Your task to perform on an android device: toggle data saver in the chrome app Image 0: 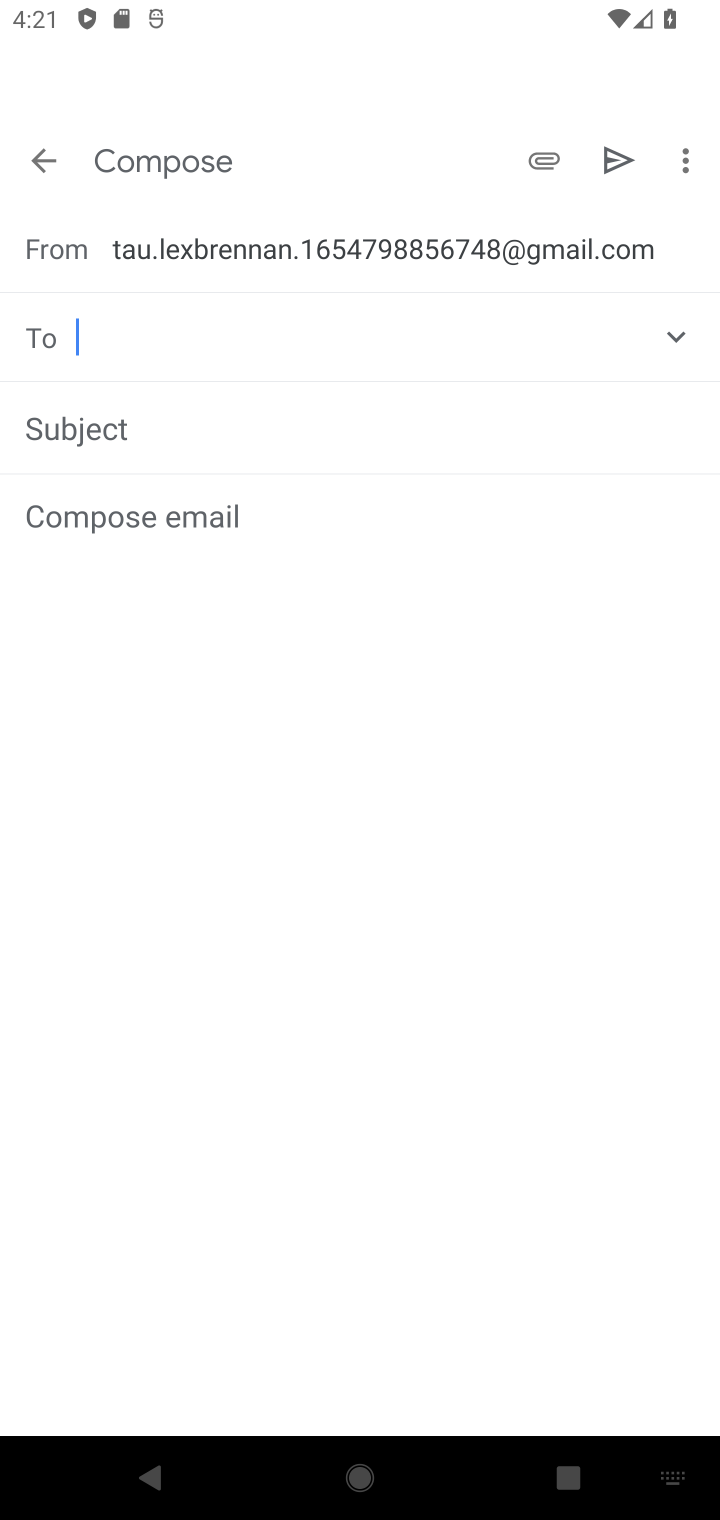
Step 0: press back button
Your task to perform on an android device: toggle data saver in the chrome app Image 1: 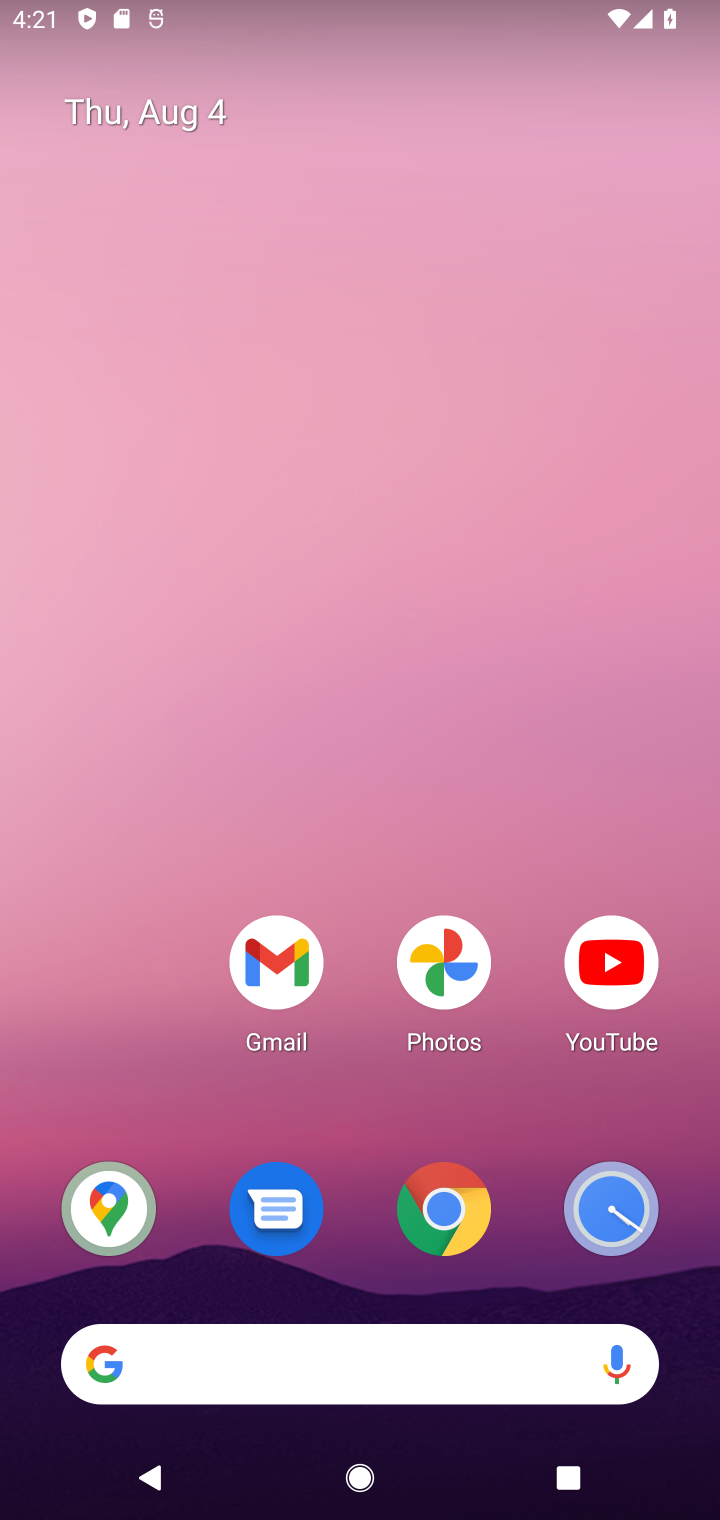
Step 1: drag from (353, 1199) to (421, 11)
Your task to perform on an android device: toggle data saver in the chrome app Image 2: 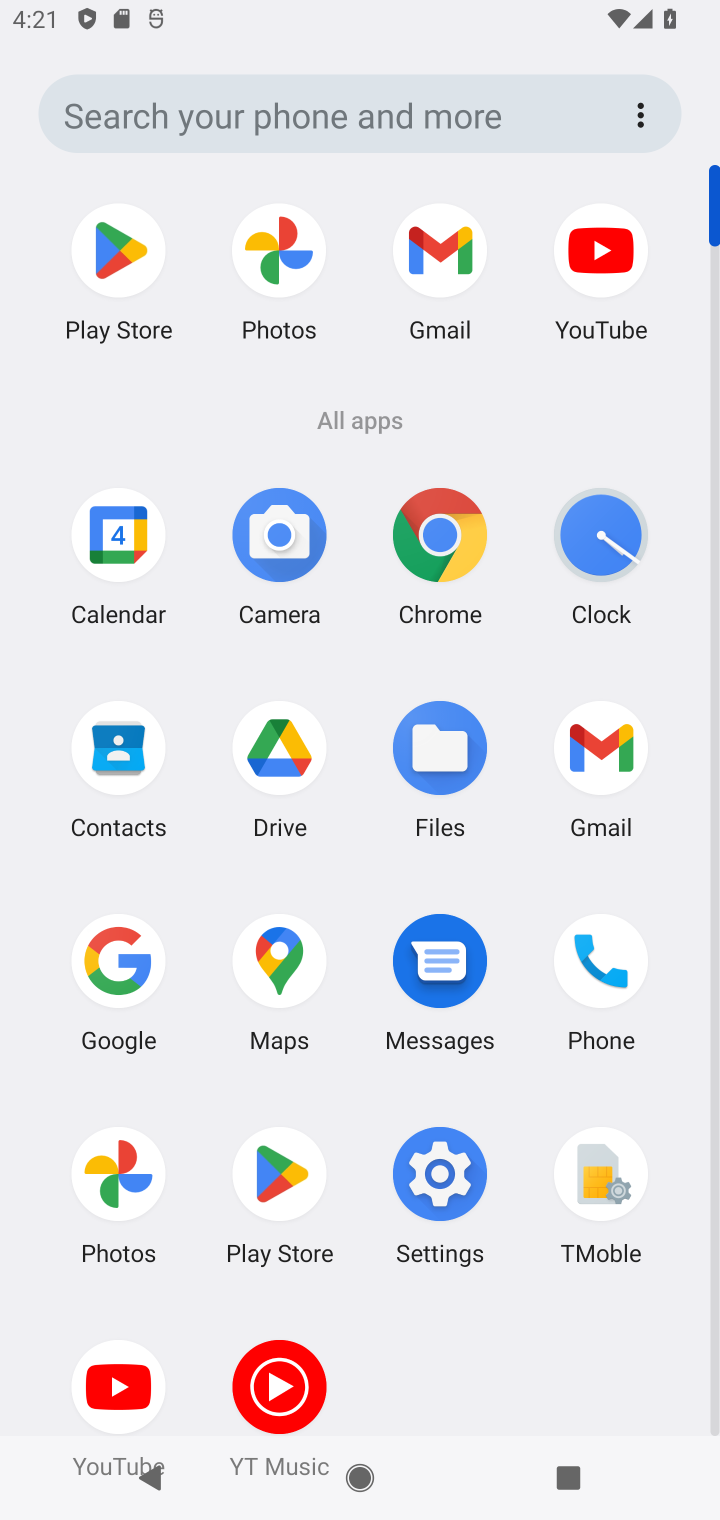
Step 2: click (425, 547)
Your task to perform on an android device: toggle data saver in the chrome app Image 3: 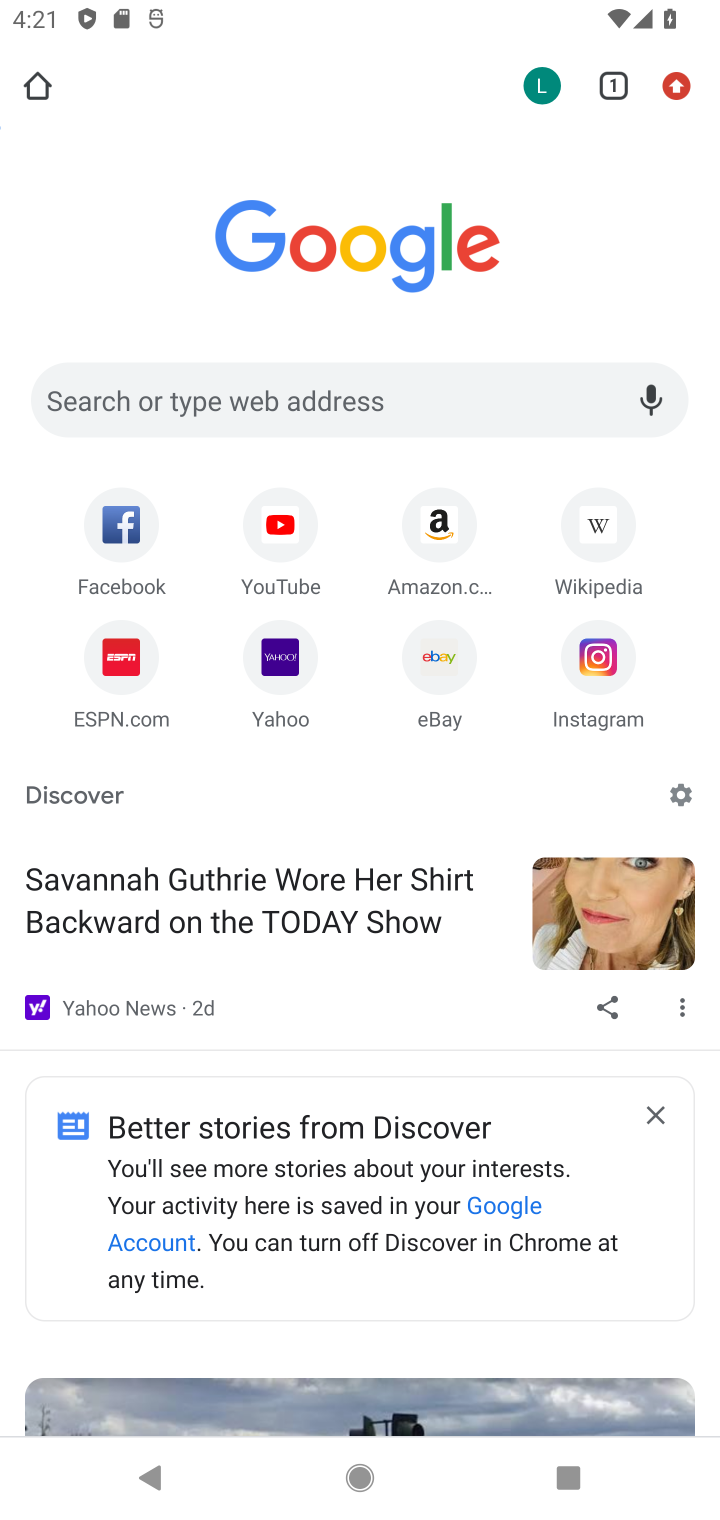
Step 3: click (681, 88)
Your task to perform on an android device: toggle data saver in the chrome app Image 4: 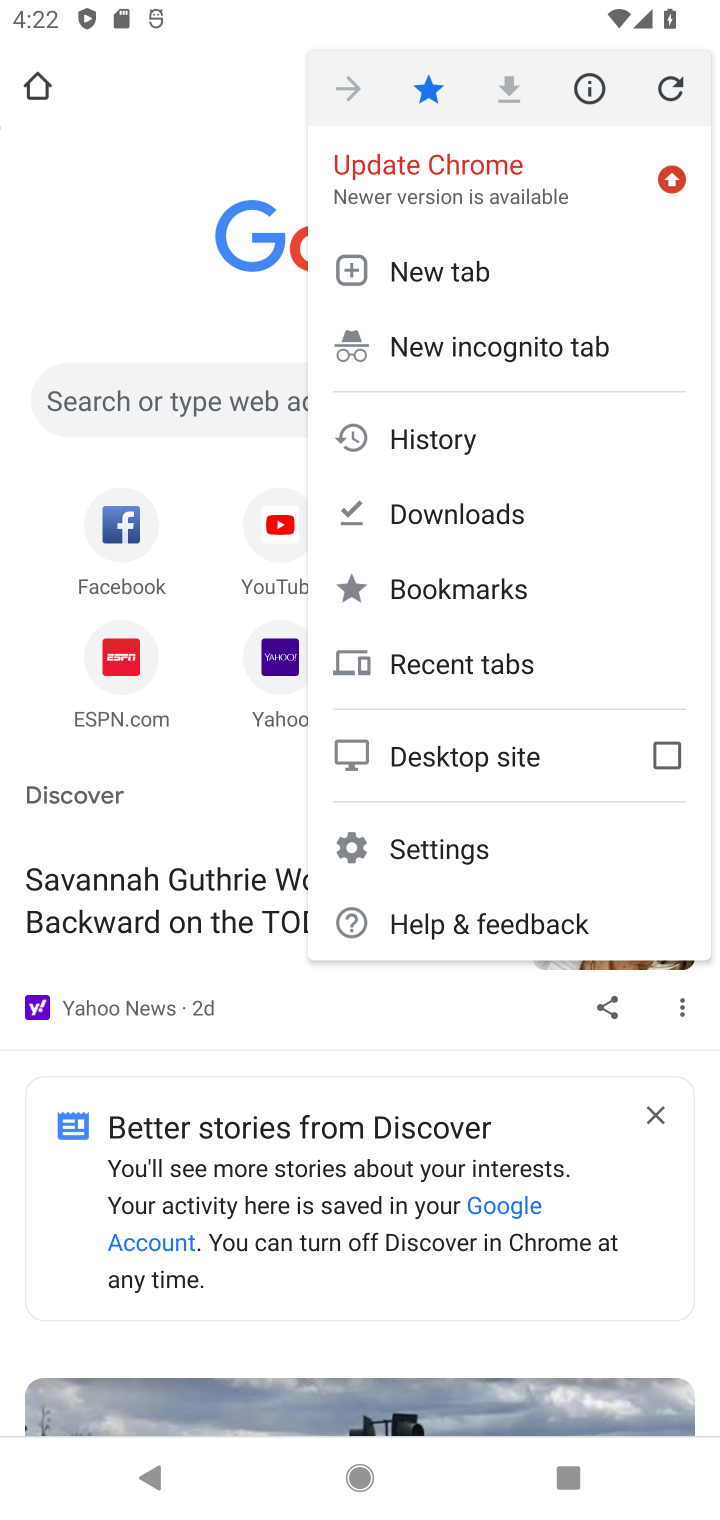
Step 4: click (426, 857)
Your task to perform on an android device: toggle data saver in the chrome app Image 5: 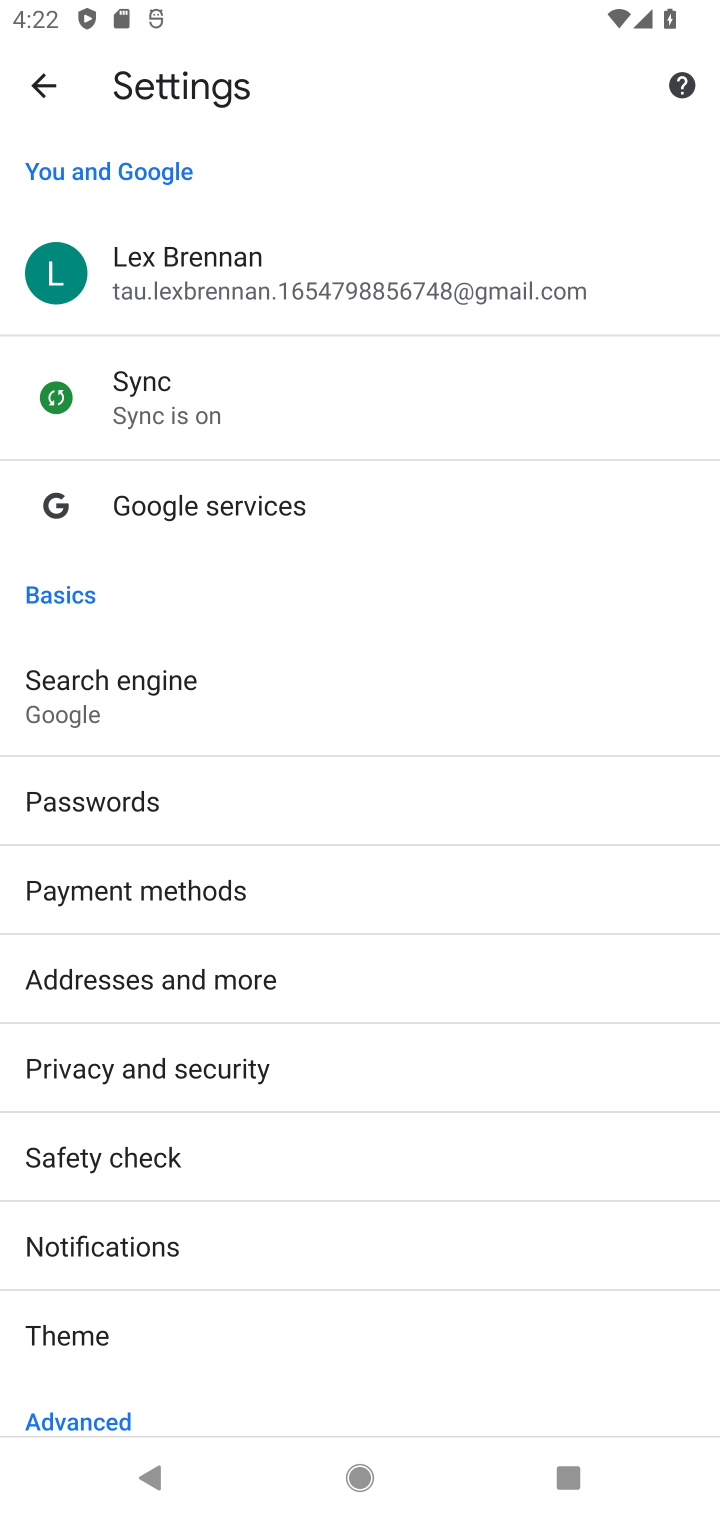
Step 5: drag from (149, 1350) to (289, 541)
Your task to perform on an android device: toggle data saver in the chrome app Image 6: 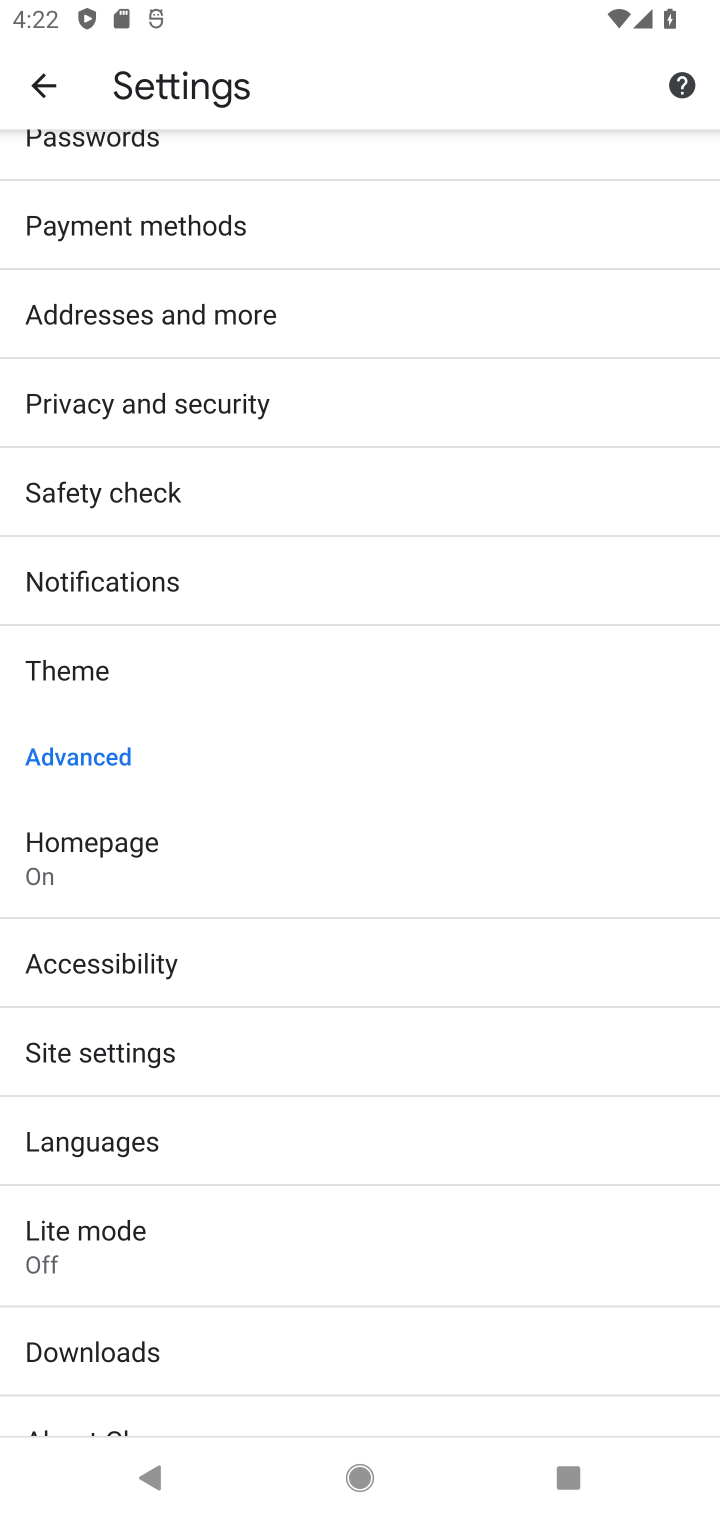
Step 6: click (122, 1270)
Your task to perform on an android device: toggle data saver in the chrome app Image 7: 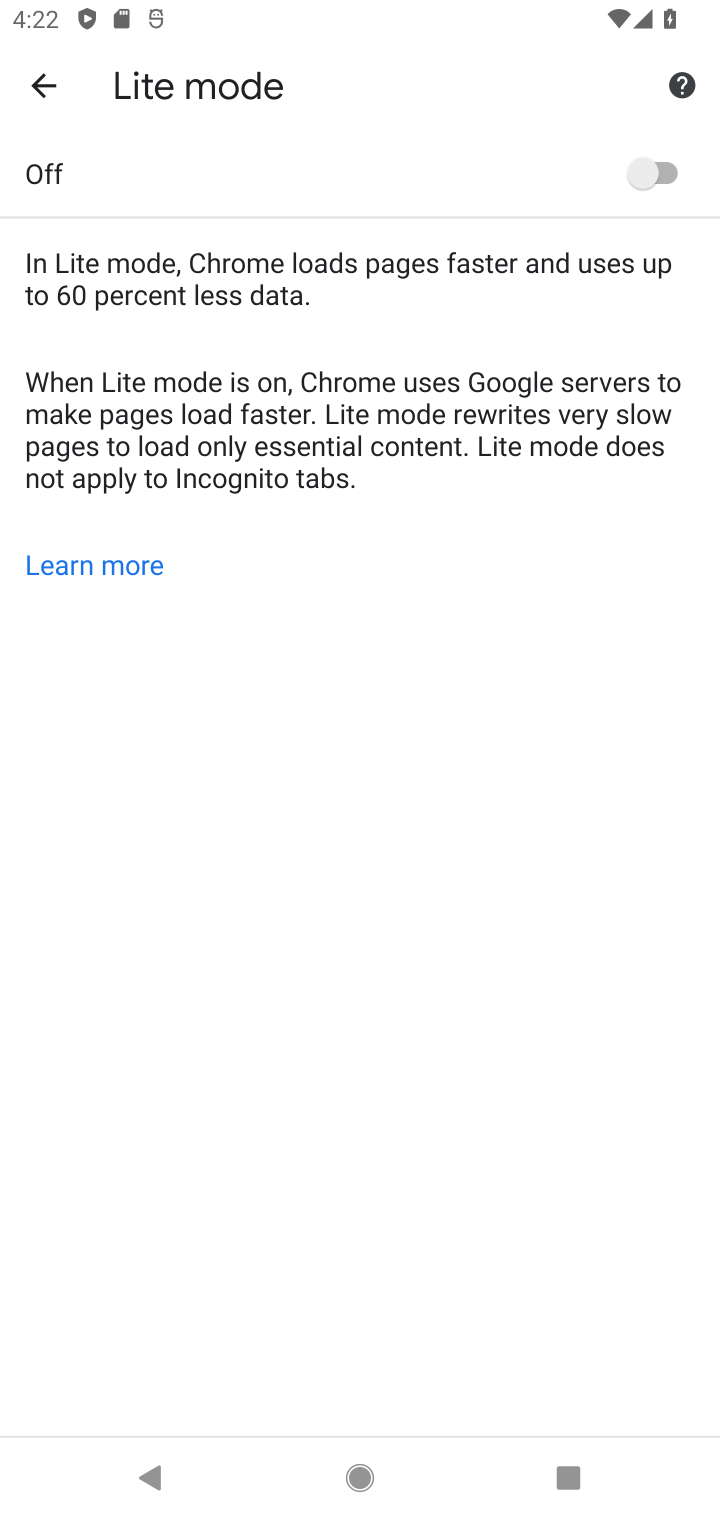
Step 7: click (670, 178)
Your task to perform on an android device: toggle data saver in the chrome app Image 8: 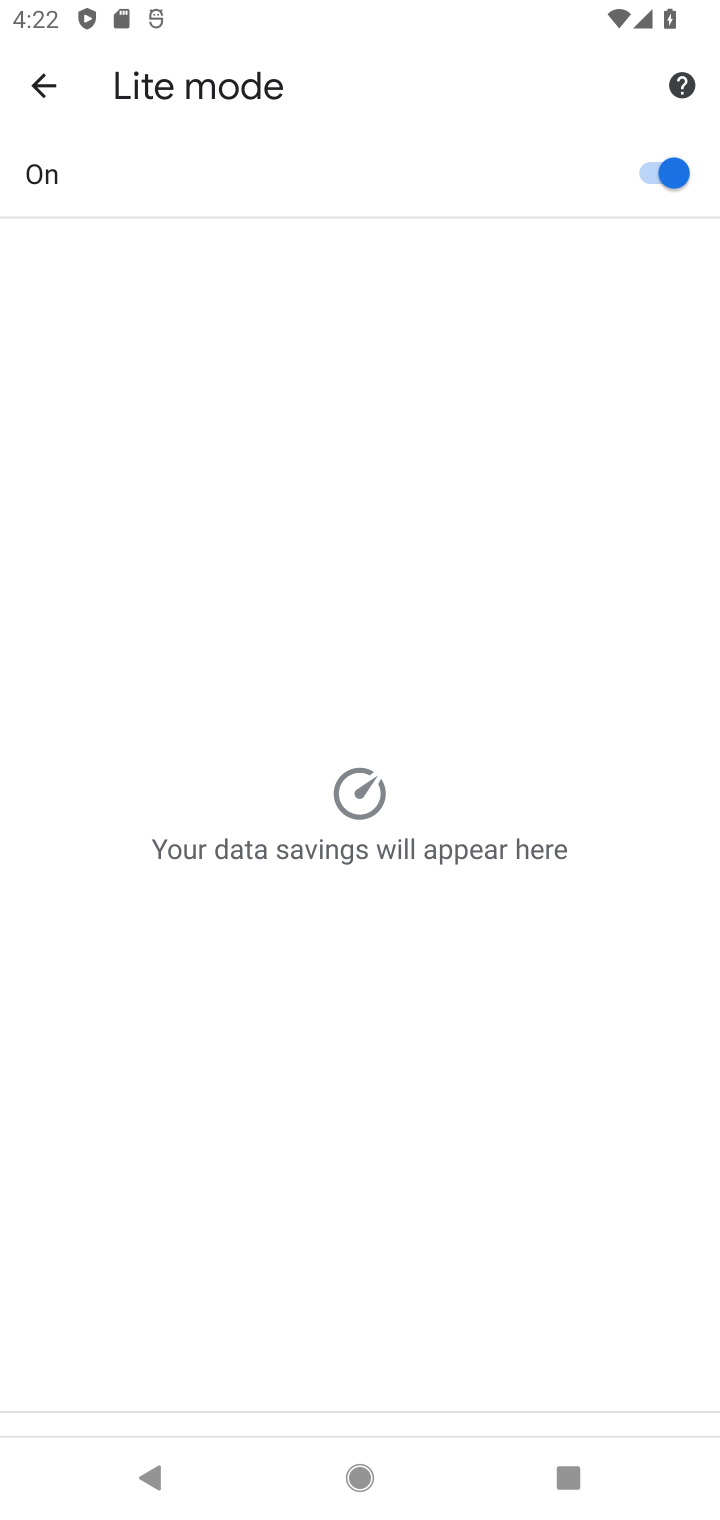
Step 8: task complete